Your task to perform on an android device: What is the news today? Image 0: 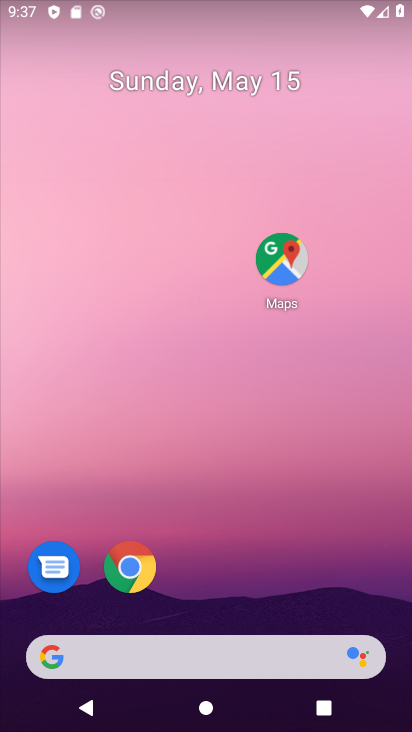
Step 0: drag from (234, 530) to (225, 28)
Your task to perform on an android device: What is the news today? Image 1: 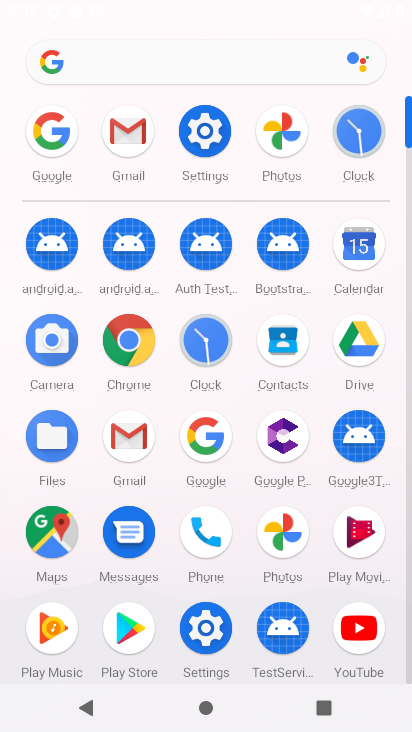
Step 1: click (60, 124)
Your task to perform on an android device: What is the news today? Image 2: 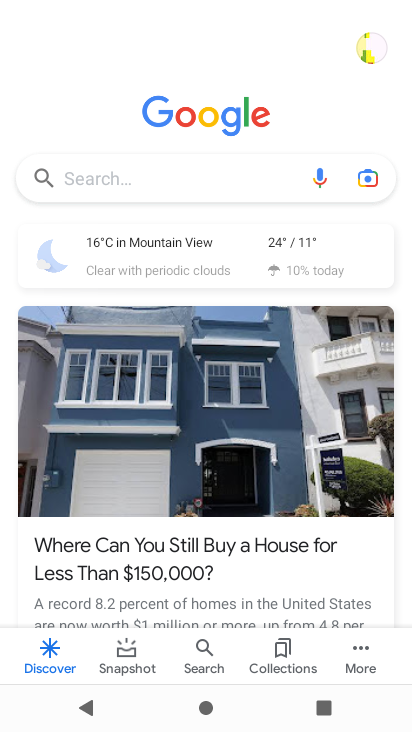
Step 2: click (121, 164)
Your task to perform on an android device: What is the news today? Image 3: 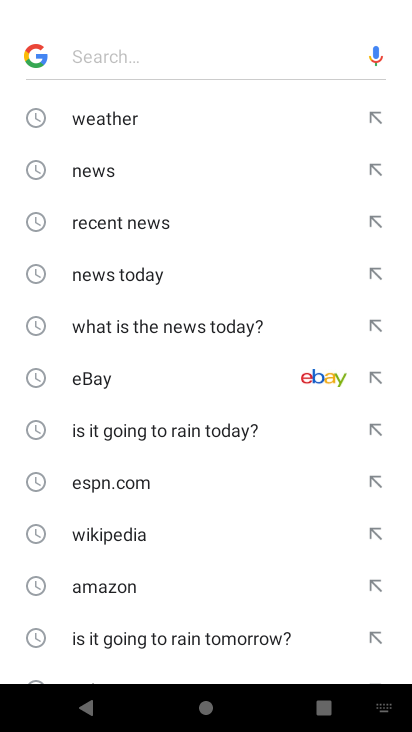
Step 3: click (146, 169)
Your task to perform on an android device: What is the news today? Image 4: 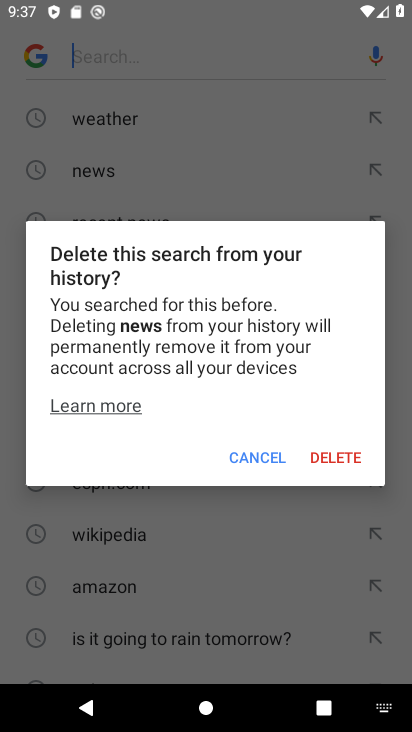
Step 4: click (271, 454)
Your task to perform on an android device: What is the news today? Image 5: 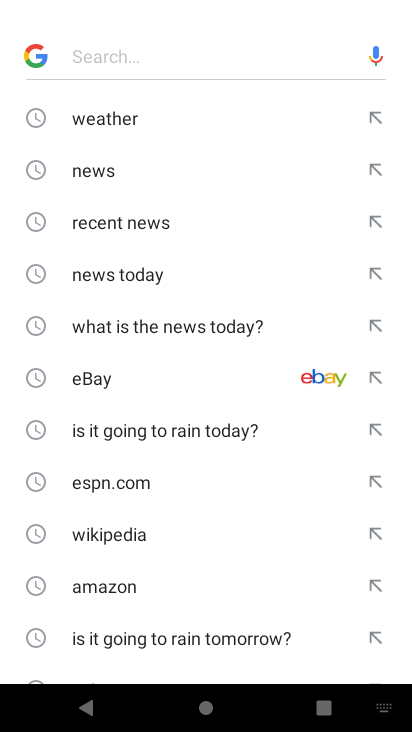
Step 5: click (133, 170)
Your task to perform on an android device: What is the news today? Image 6: 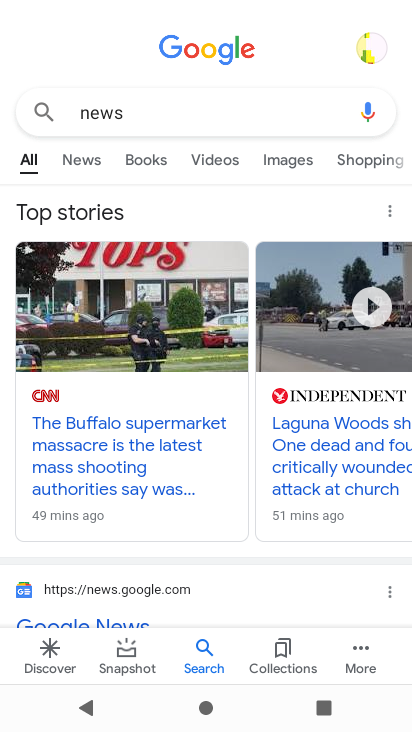
Step 6: task complete